Your task to perform on an android device: move a message to another label in the gmail app Image 0: 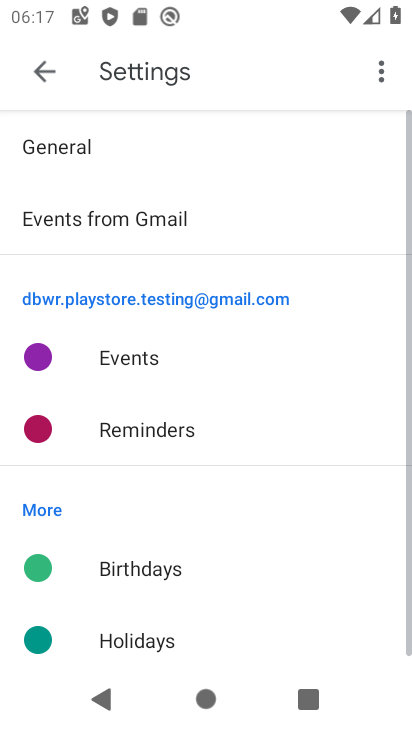
Step 0: click (252, 498)
Your task to perform on an android device: move a message to another label in the gmail app Image 1: 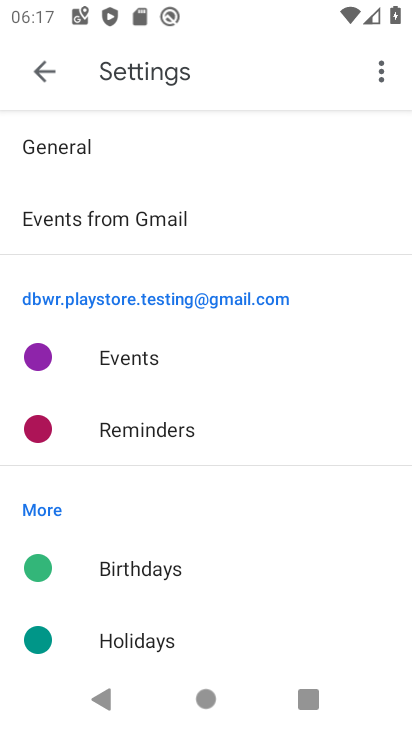
Step 1: press home button
Your task to perform on an android device: move a message to another label in the gmail app Image 2: 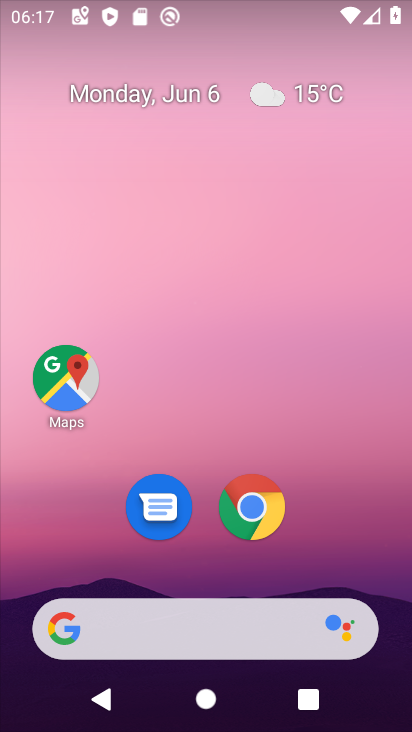
Step 2: click (247, 514)
Your task to perform on an android device: move a message to another label in the gmail app Image 3: 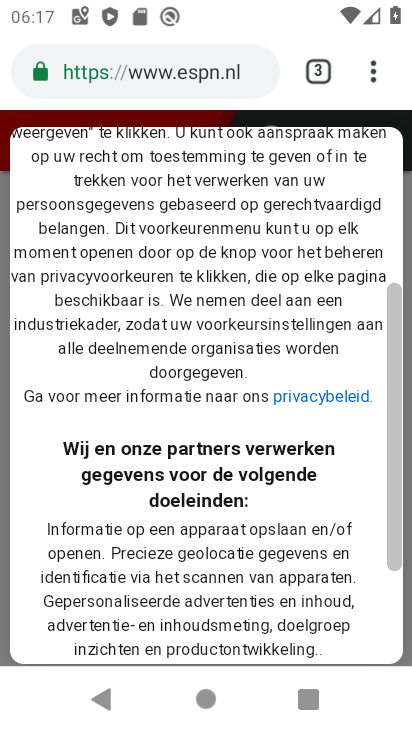
Step 3: press home button
Your task to perform on an android device: move a message to another label in the gmail app Image 4: 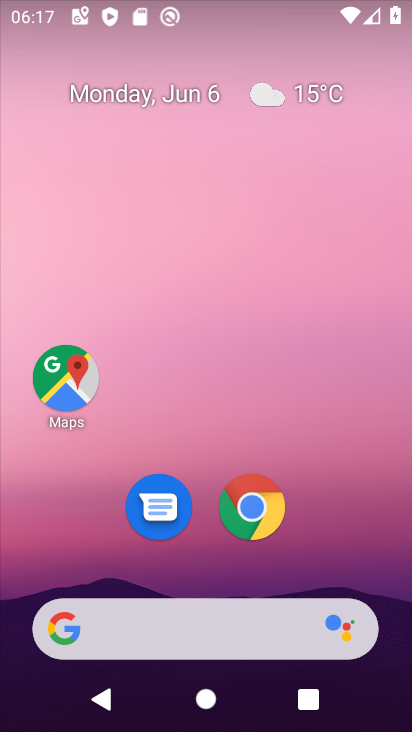
Step 4: drag from (203, 533) to (191, 5)
Your task to perform on an android device: move a message to another label in the gmail app Image 5: 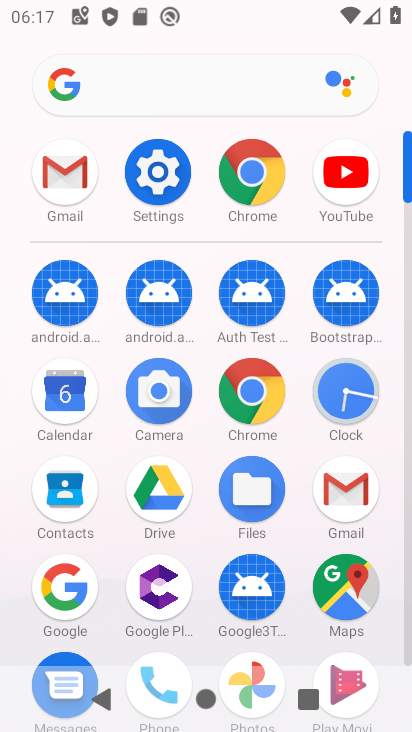
Step 5: click (355, 472)
Your task to perform on an android device: move a message to another label in the gmail app Image 6: 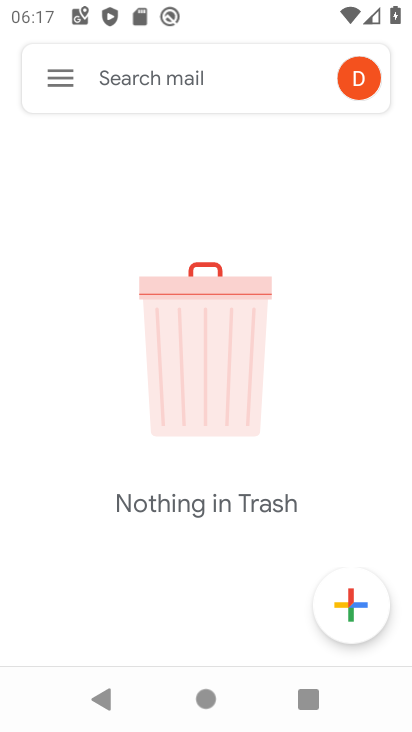
Step 6: click (66, 77)
Your task to perform on an android device: move a message to another label in the gmail app Image 7: 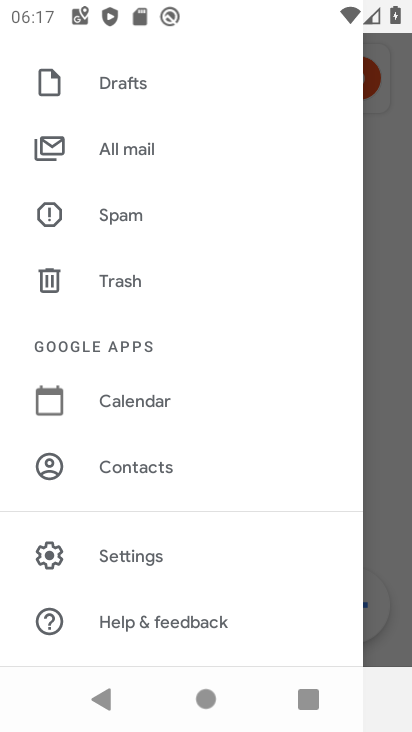
Step 7: drag from (165, 165) to (132, 731)
Your task to perform on an android device: move a message to another label in the gmail app Image 8: 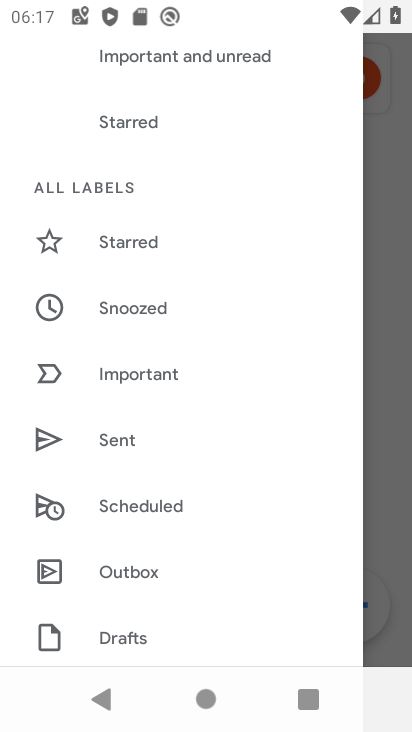
Step 8: drag from (129, 589) to (184, 255)
Your task to perform on an android device: move a message to another label in the gmail app Image 9: 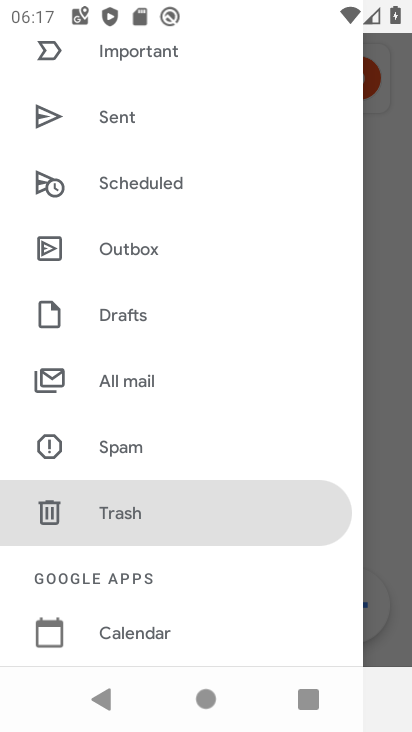
Step 9: click (139, 379)
Your task to perform on an android device: move a message to another label in the gmail app Image 10: 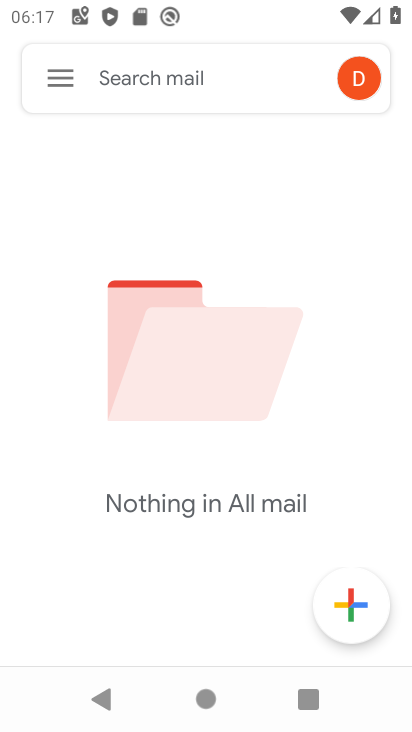
Step 10: task complete